Your task to perform on an android device: Go to internet settings Image 0: 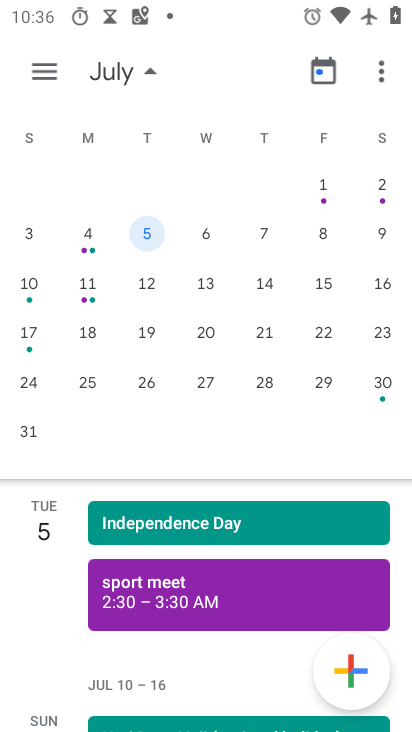
Step 0: press home button
Your task to perform on an android device: Go to internet settings Image 1: 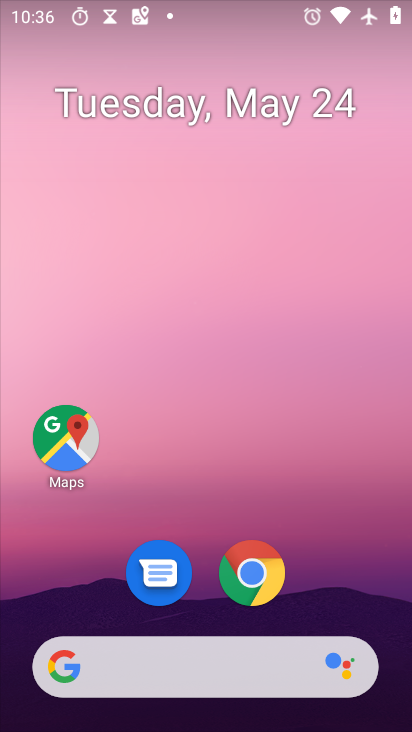
Step 1: drag from (338, 583) to (288, 79)
Your task to perform on an android device: Go to internet settings Image 2: 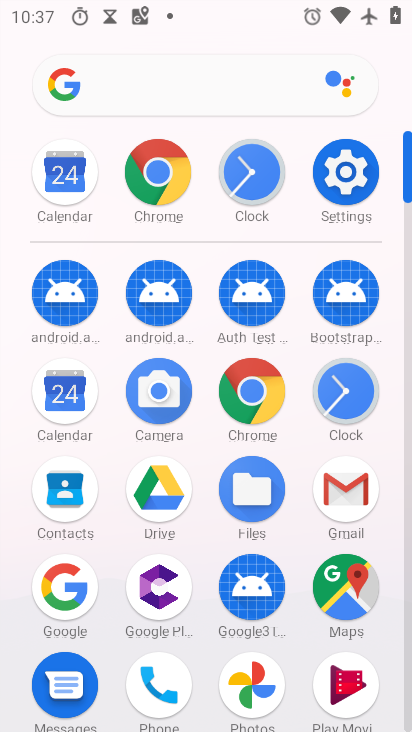
Step 2: click (342, 179)
Your task to perform on an android device: Go to internet settings Image 3: 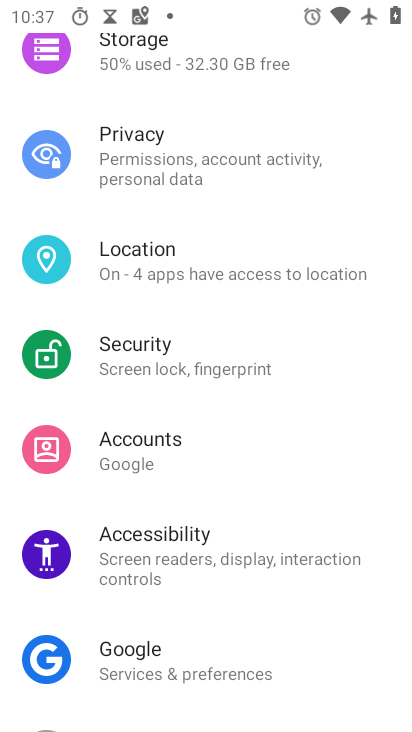
Step 3: drag from (193, 228) to (260, 723)
Your task to perform on an android device: Go to internet settings Image 4: 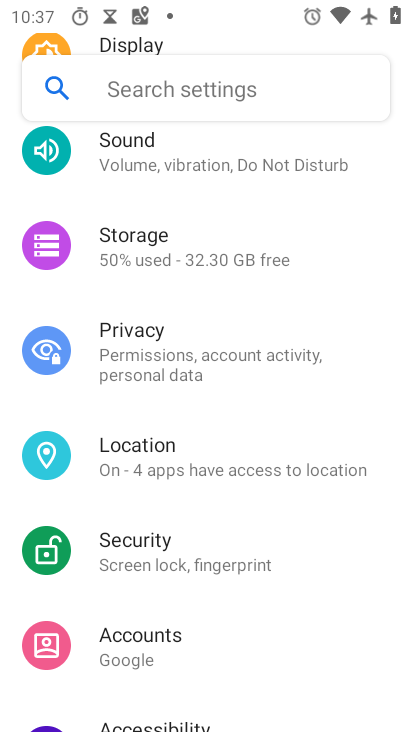
Step 4: drag from (319, 179) to (314, 622)
Your task to perform on an android device: Go to internet settings Image 5: 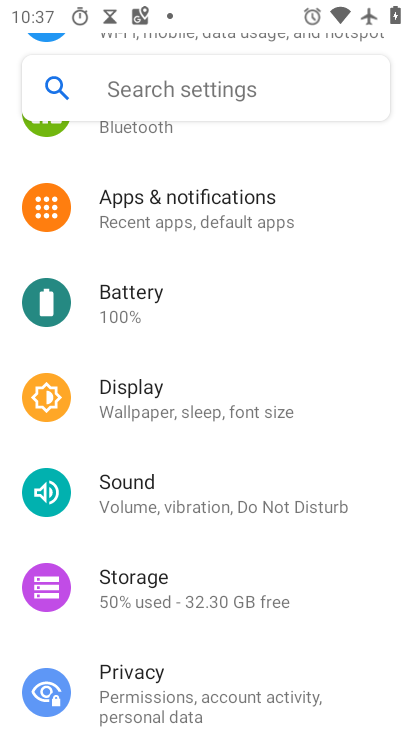
Step 5: drag from (329, 196) to (365, 646)
Your task to perform on an android device: Go to internet settings Image 6: 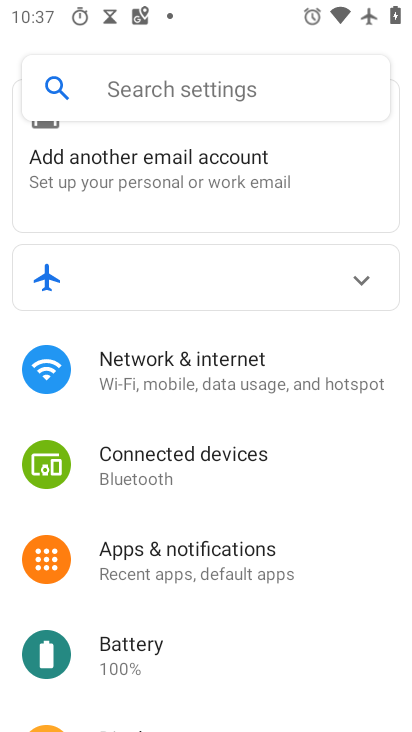
Step 6: click (239, 360)
Your task to perform on an android device: Go to internet settings Image 7: 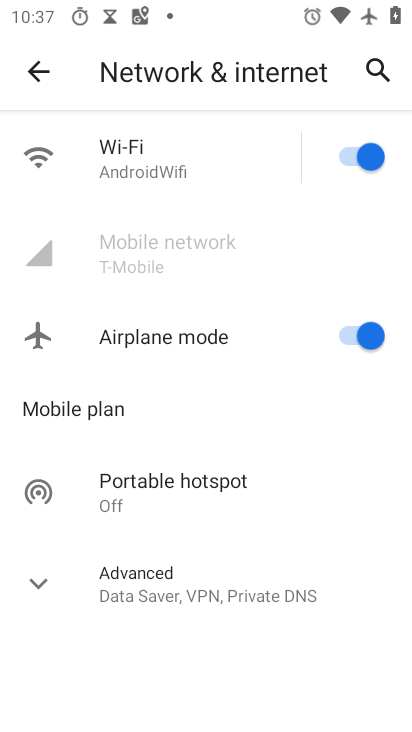
Step 7: task complete